Your task to perform on an android device: When is my next appointment? Image 0: 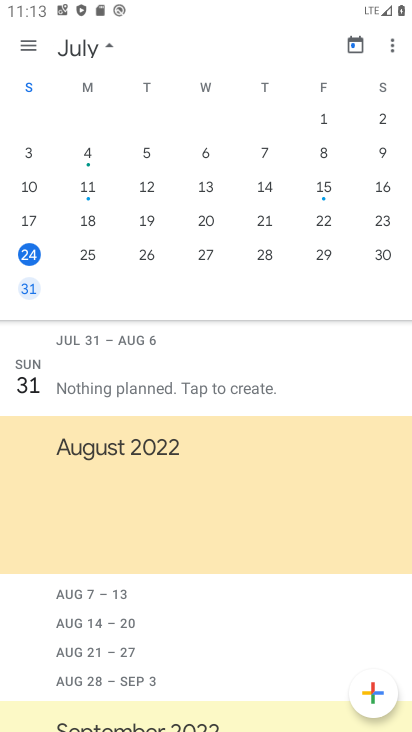
Step 0: press home button
Your task to perform on an android device: When is my next appointment? Image 1: 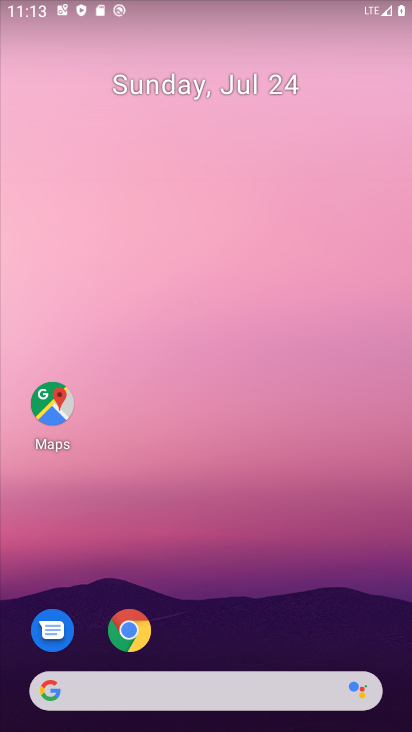
Step 1: drag from (200, 634) to (223, 190)
Your task to perform on an android device: When is my next appointment? Image 2: 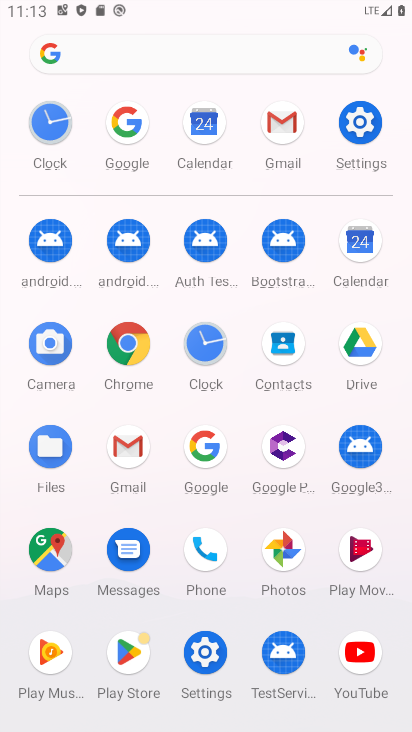
Step 2: click (336, 230)
Your task to perform on an android device: When is my next appointment? Image 3: 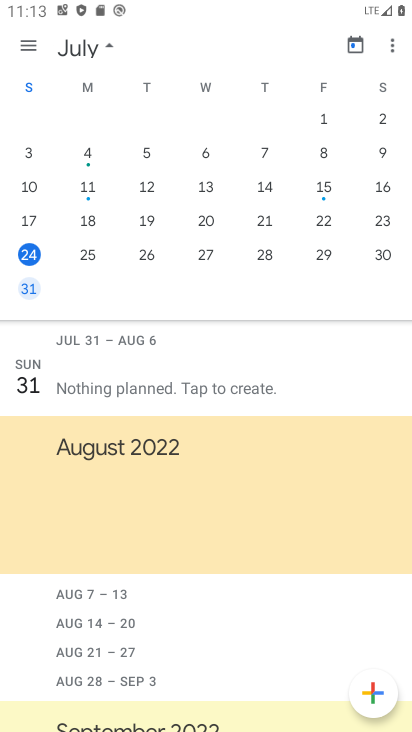
Step 3: click (88, 248)
Your task to perform on an android device: When is my next appointment? Image 4: 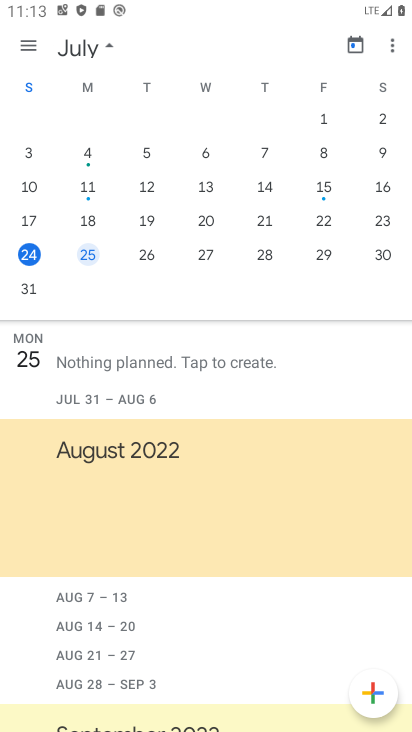
Step 4: click (135, 257)
Your task to perform on an android device: When is my next appointment? Image 5: 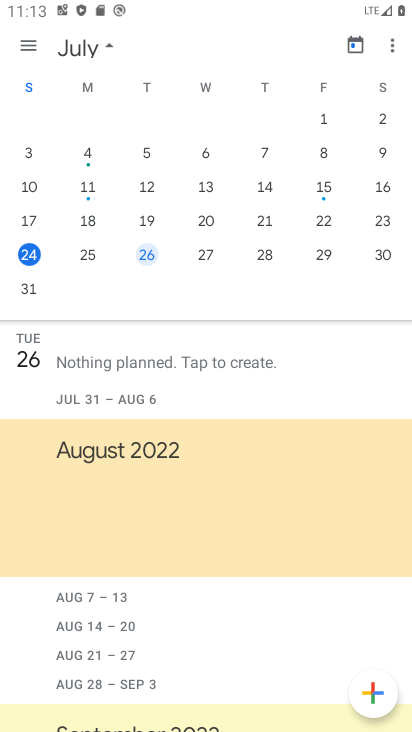
Step 5: task complete